Your task to perform on an android device: change your default location settings in chrome Image 0: 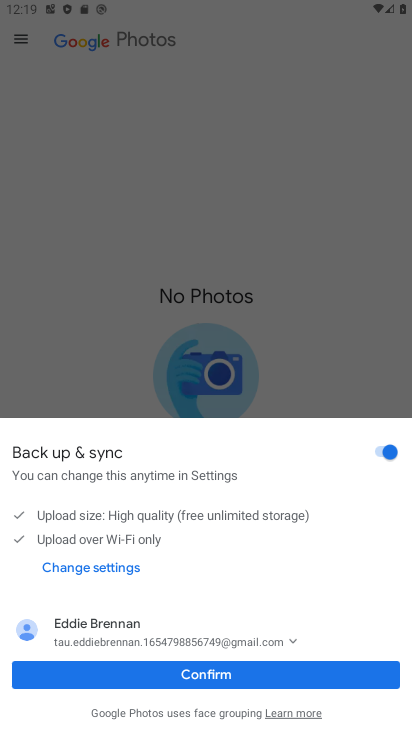
Step 0: press home button
Your task to perform on an android device: change your default location settings in chrome Image 1: 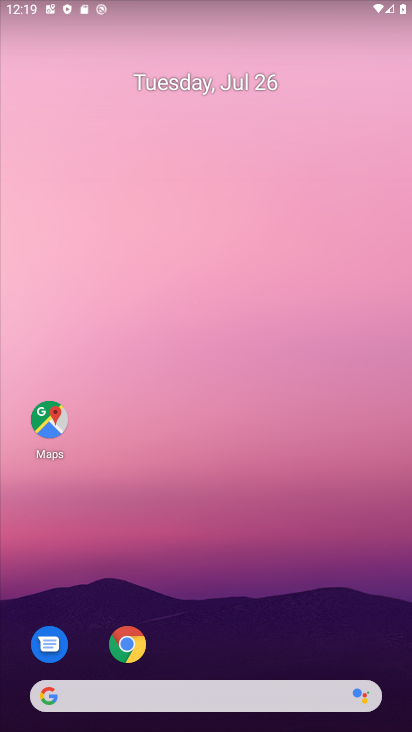
Step 1: drag from (258, 645) to (216, 226)
Your task to perform on an android device: change your default location settings in chrome Image 2: 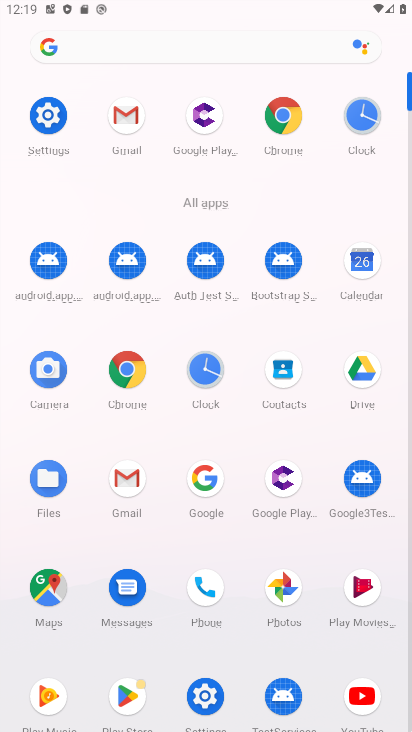
Step 2: click (121, 378)
Your task to perform on an android device: change your default location settings in chrome Image 3: 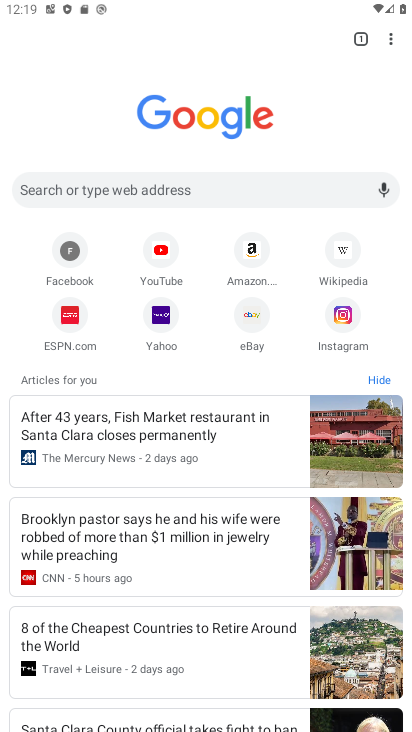
Step 3: click (399, 37)
Your task to perform on an android device: change your default location settings in chrome Image 4: 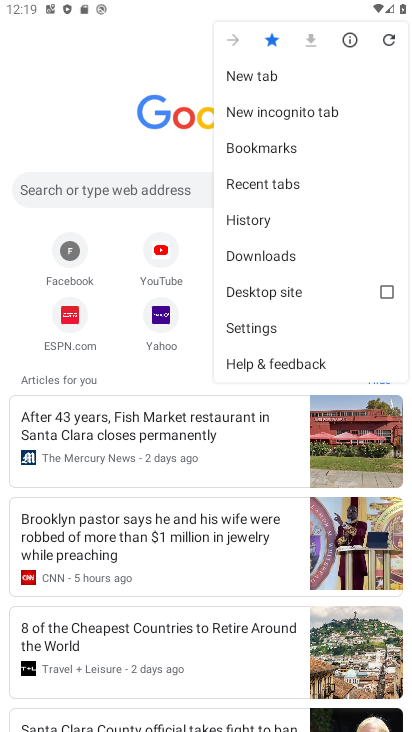
Step 4: click (253, 332)
Your task to perform on an android device: change your default location settings in chrome Image 5: 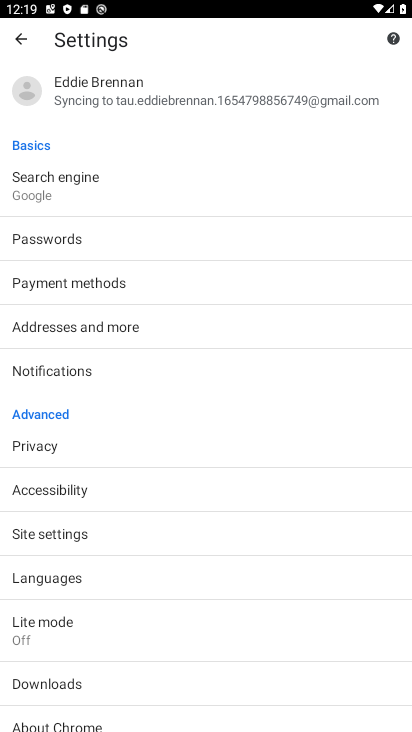
Step 5: click (105, 537)
Your task to perform on an android device: change your default location settings in chrome Image 6: 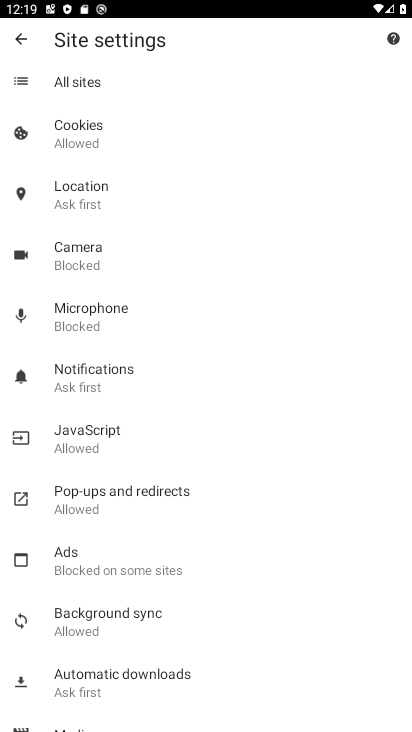
Step 6: click (78, 179)
Your task to perform on an android device: change your default location settings in chrome Image 7: 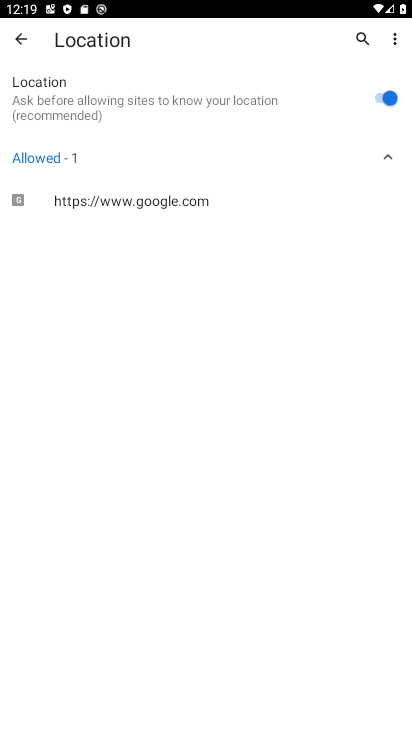
Step 7: click (392, 85)
Your task to perform on an android device: change your default location settings in chrome Image 8: 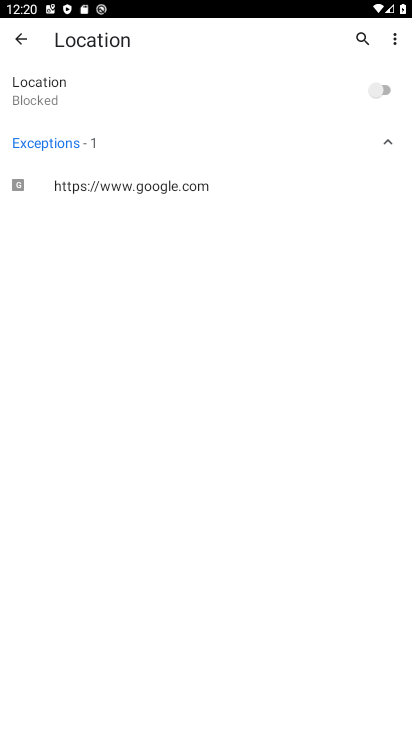
Step 8: task complete